Your task to perform on an android device: open app "Microsoft Outlook" (install if not already installed) Image 0: 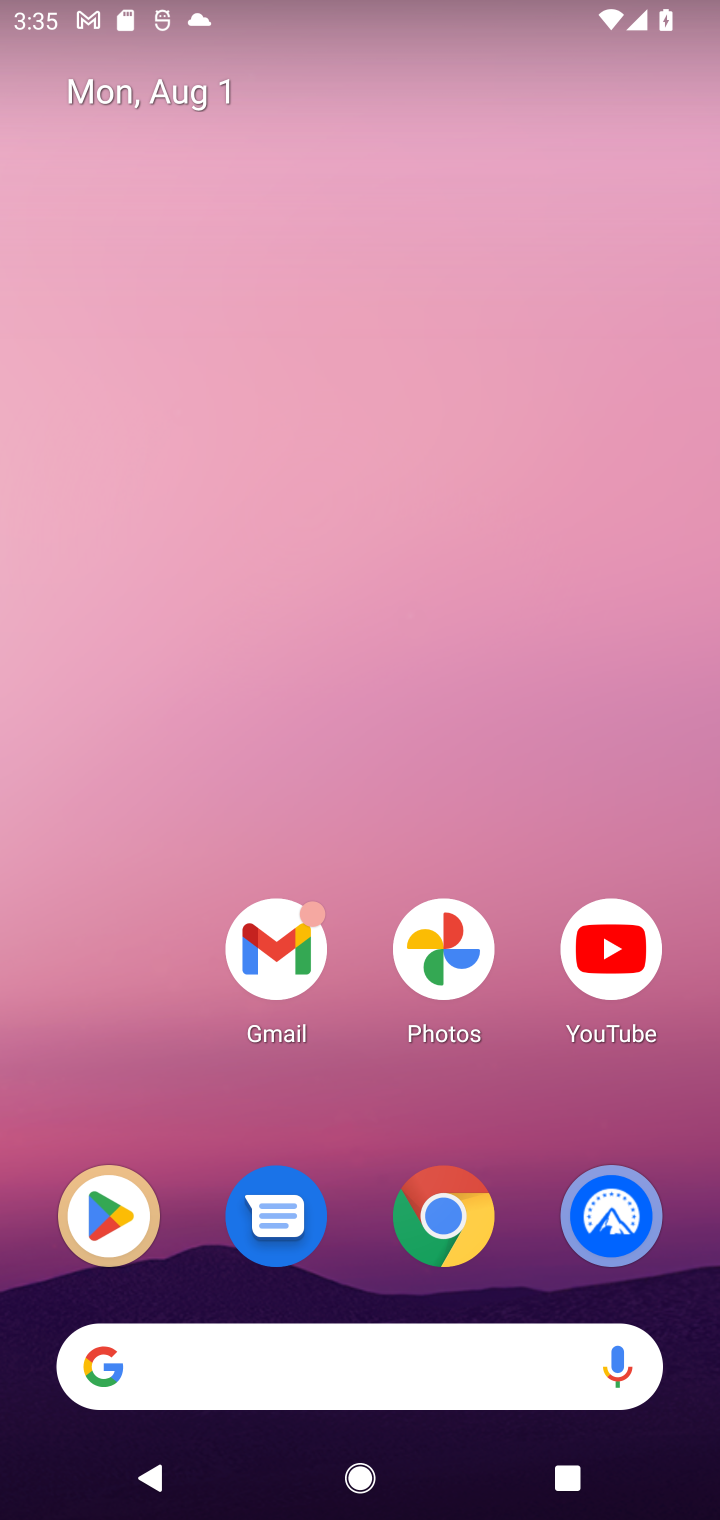
Step 0: drag from (485, 1345) to (394, 8)
Your task to perform on an android device: open app "Microsoft Outlook" (install if not already installed) Image 1: 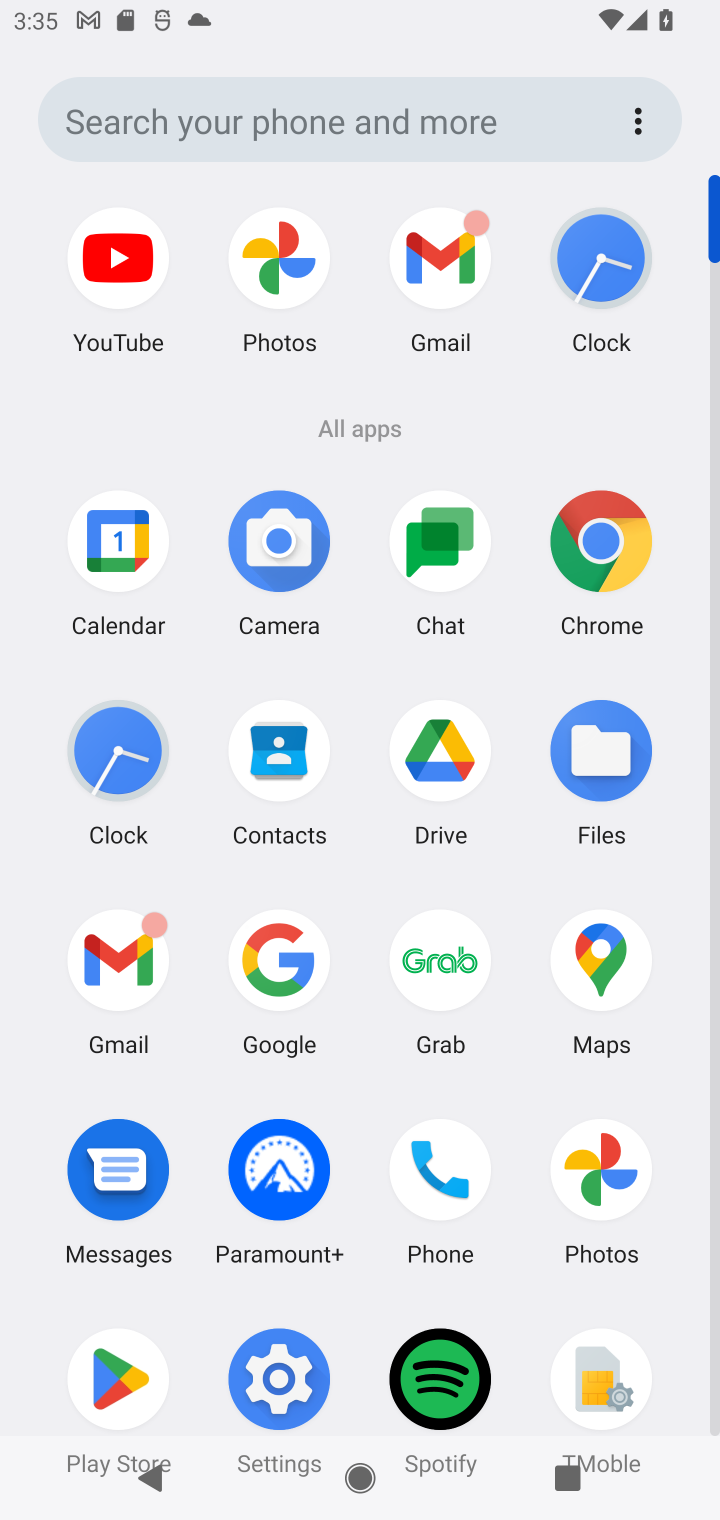
Step 1: drag from (517, 1091) to (520, 523)
Your task to perform on an android device: open app "Microsoft Outlook" (install if not already installed) Image 2: 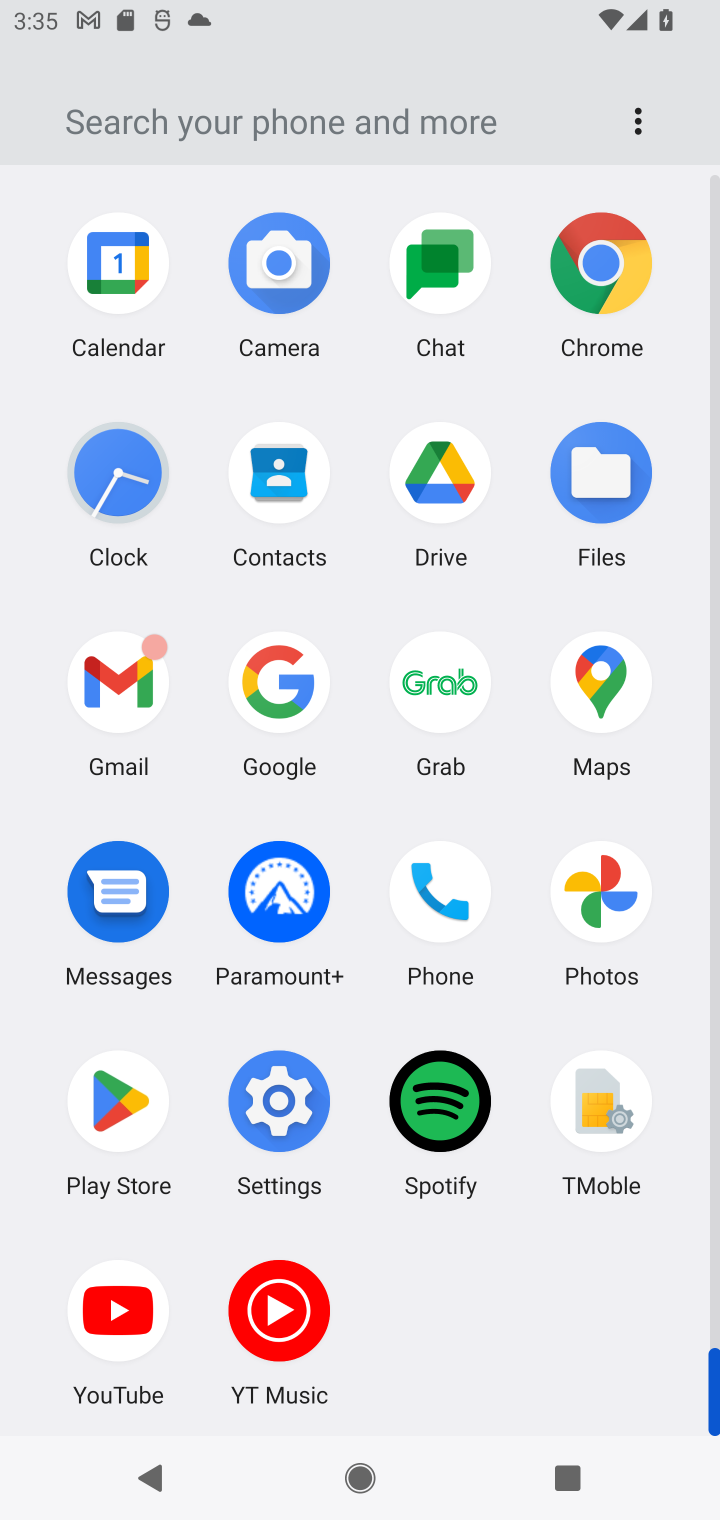
Step 2: click (100, 1122)
Your task to perform on an android device: open app "Microsoft Outlook" (install if not already installed) Image 3: 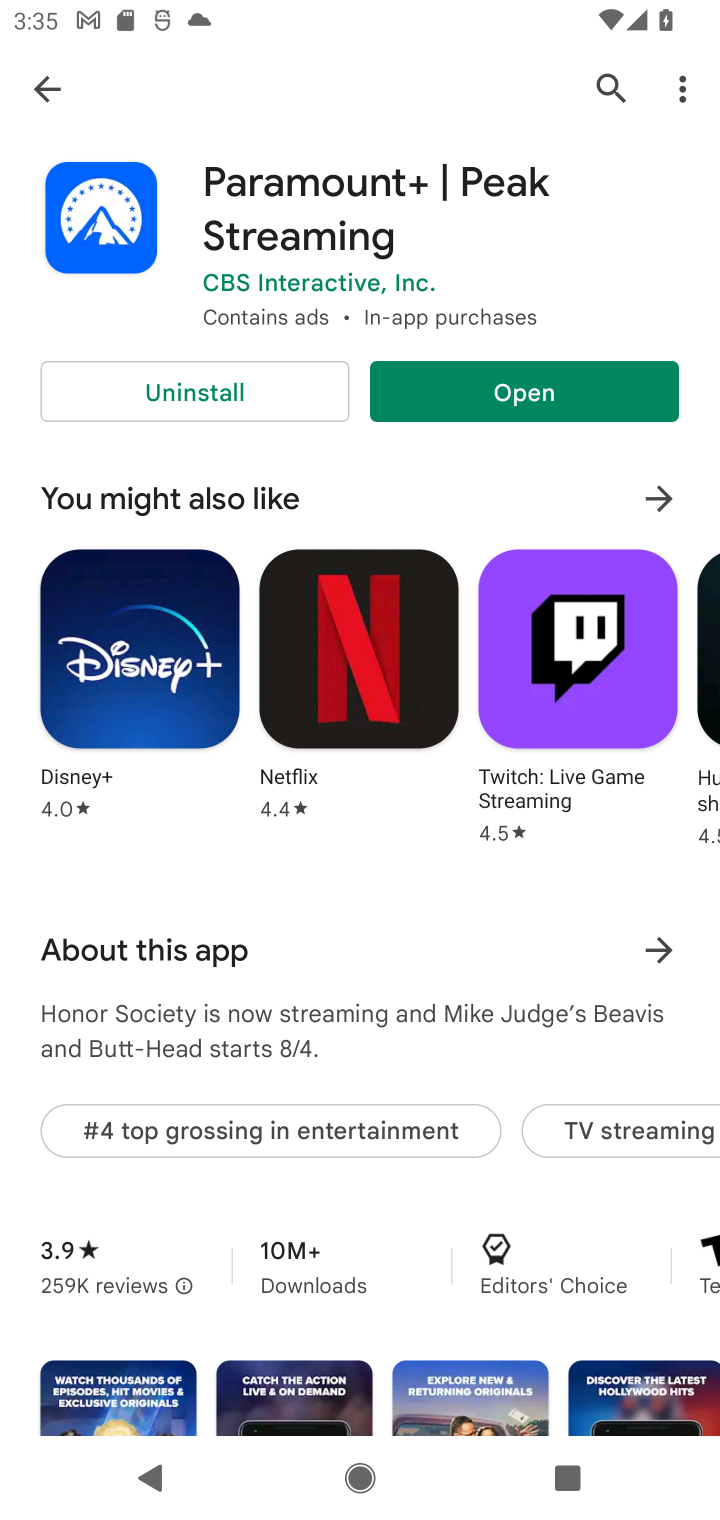
Step 3: click (593, 86)
Your task to perform on an android device: open app "Microsoft Outlook" (install if not already installed) Image 4: 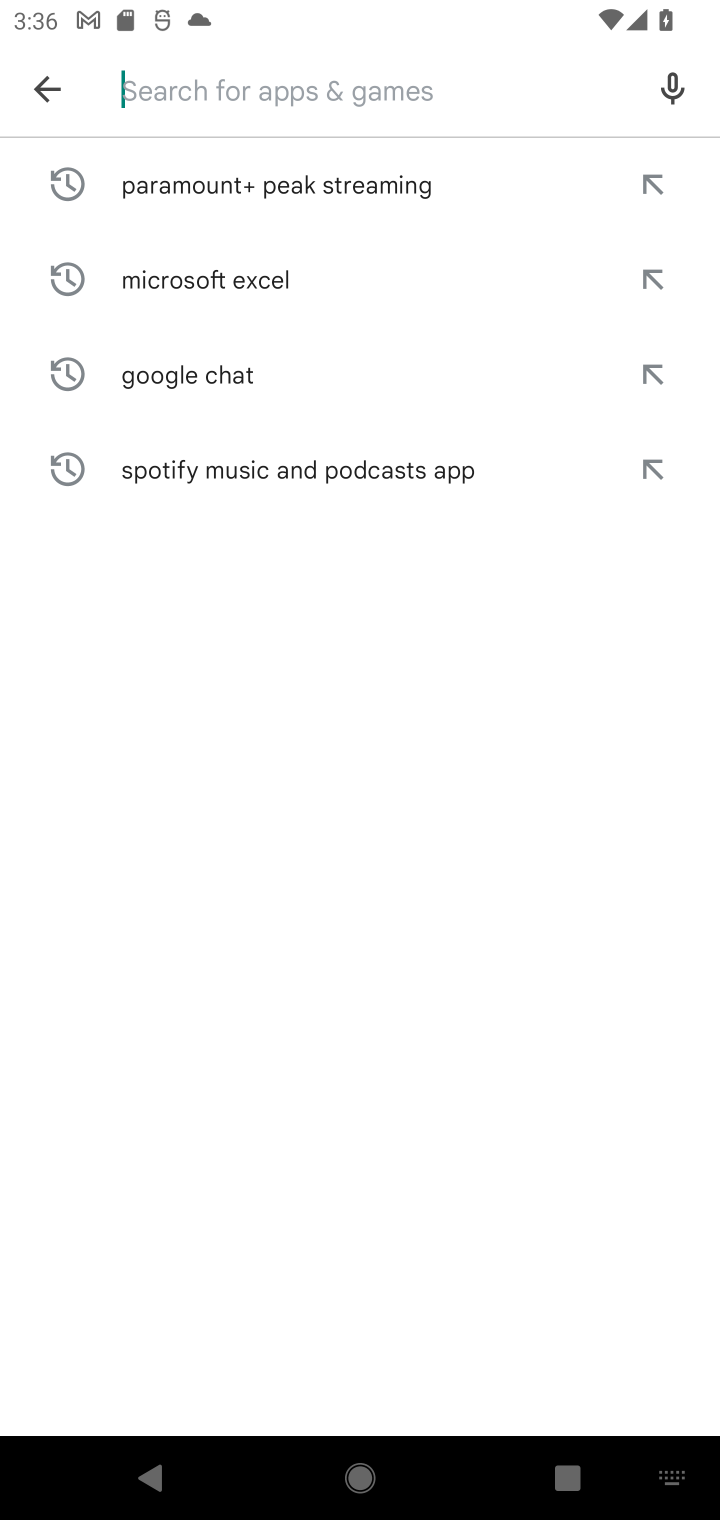
Step 4: type "microsoft outlook"
Your task to perform on an android device: open app "Microsoft Outlook" (install if not already installed) Image 5: 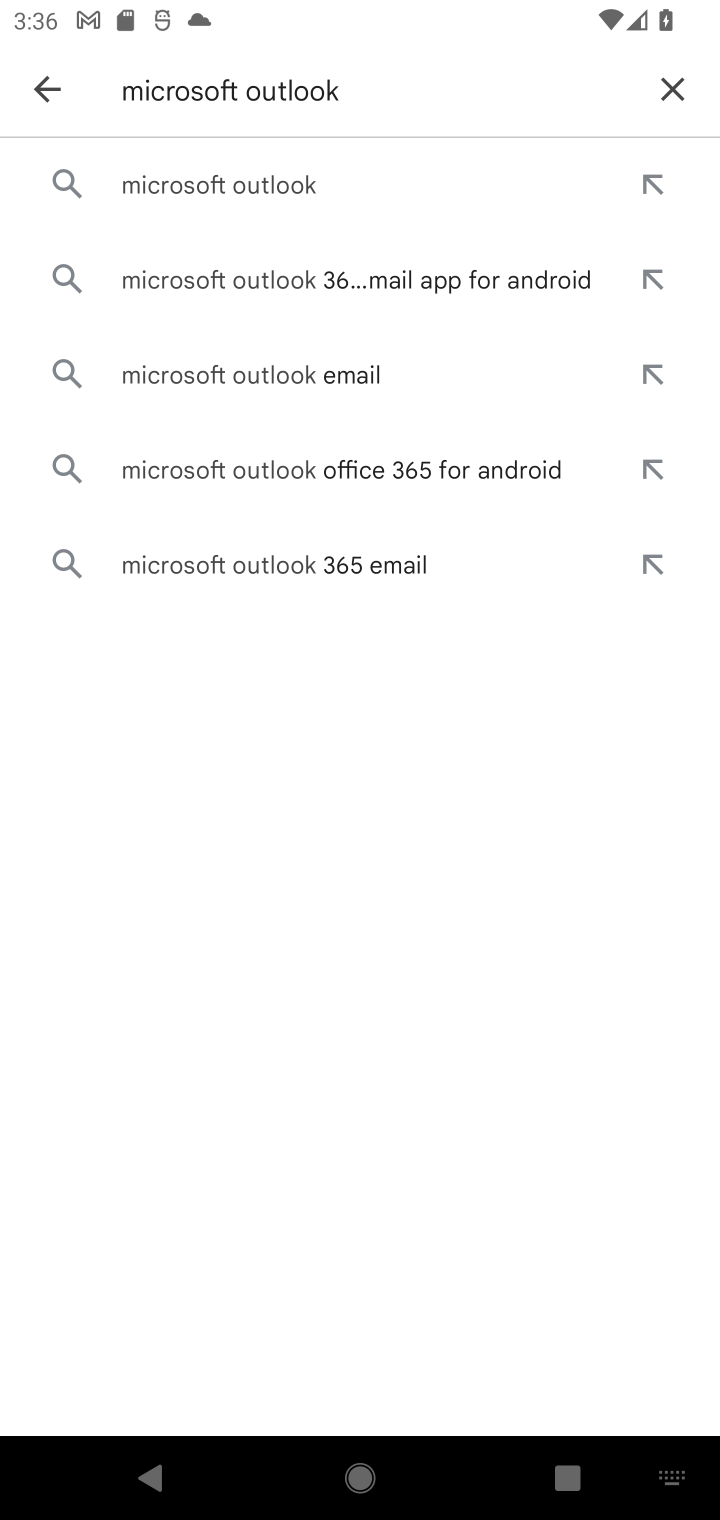
Step 5: click (277, 171)
Your task to perform on an android device: open app "Microsoft Outlook" (install if not already installed) Image 6: 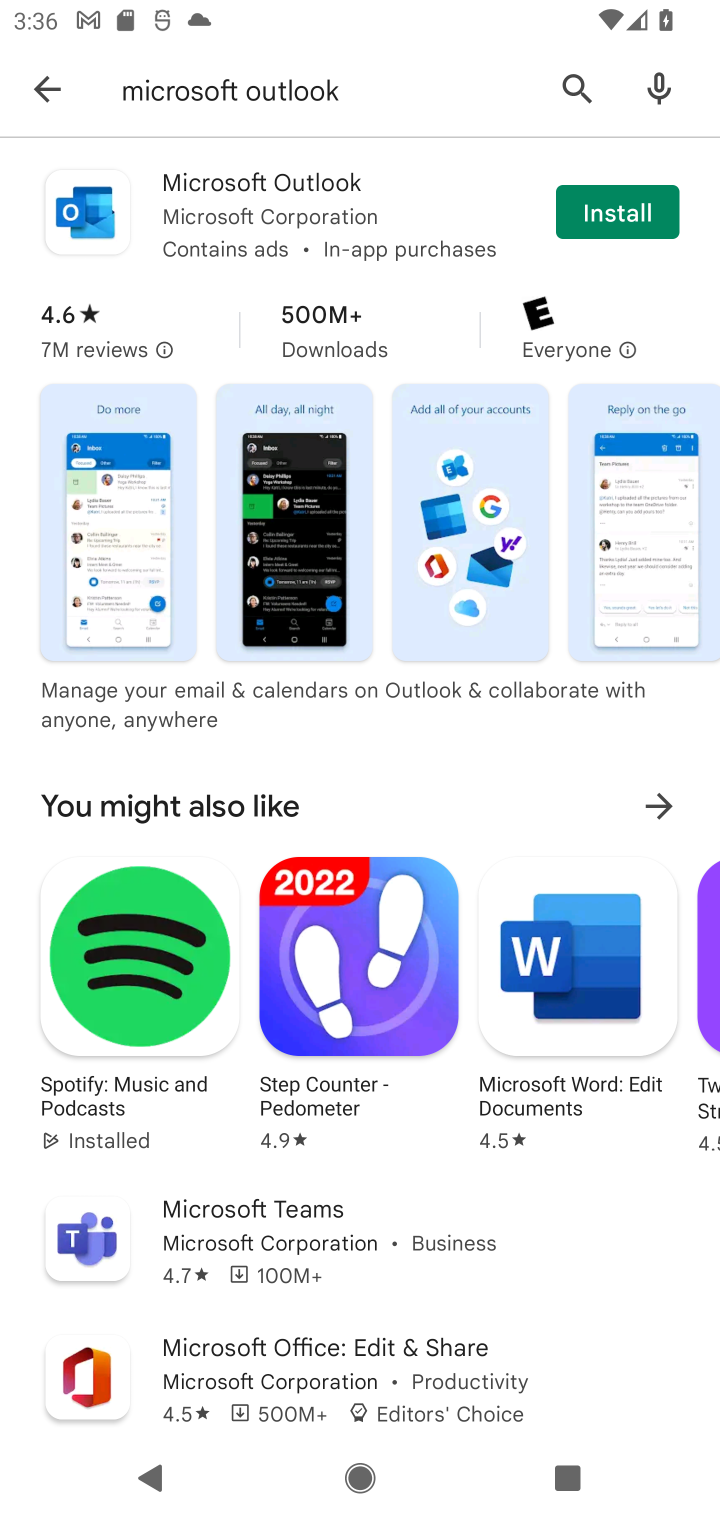
Step 6: click (634, 220)
Your task to perform on an android device: open app "Microsoft Outlook" (install if not already installed) Image 7: 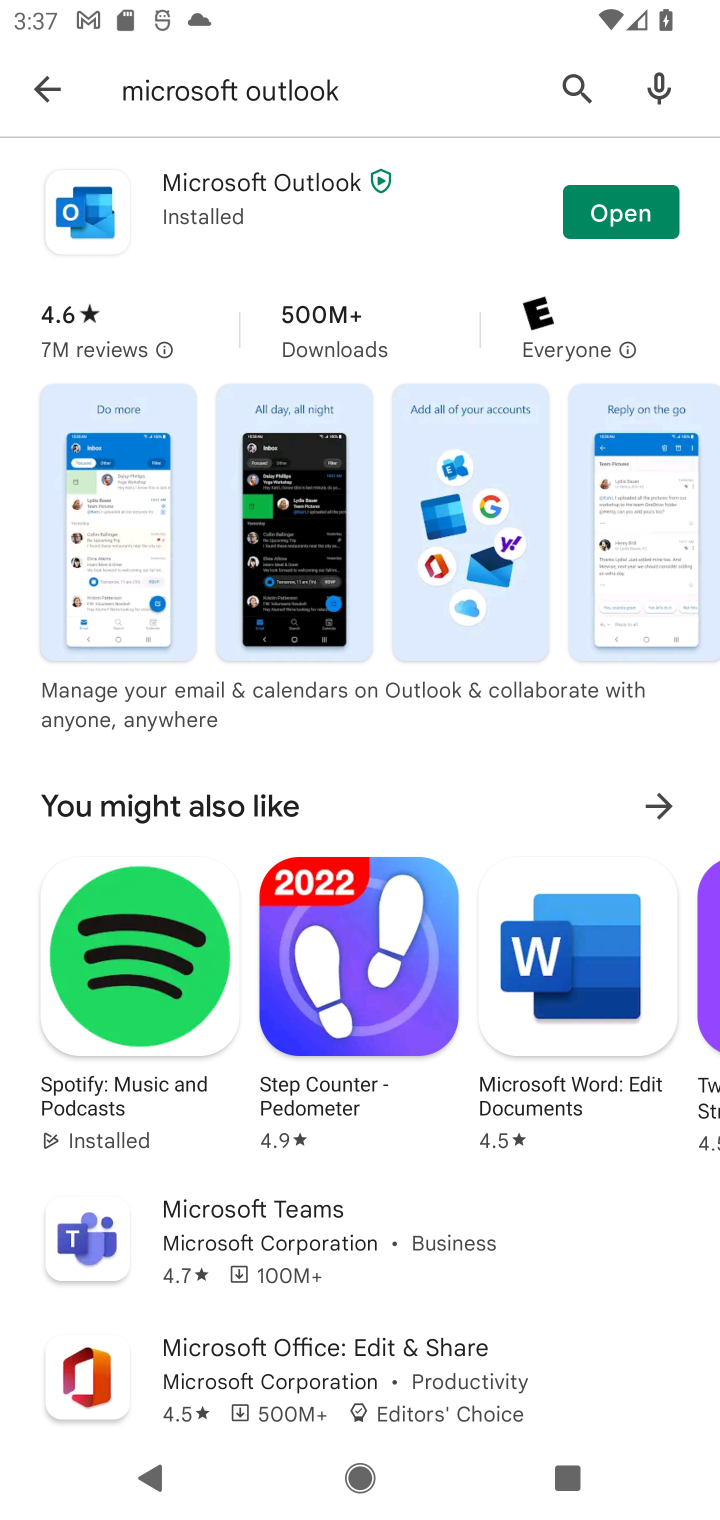
Step 7: task complete